Your task to perform on an android device: change the clock display to digital Image 0: 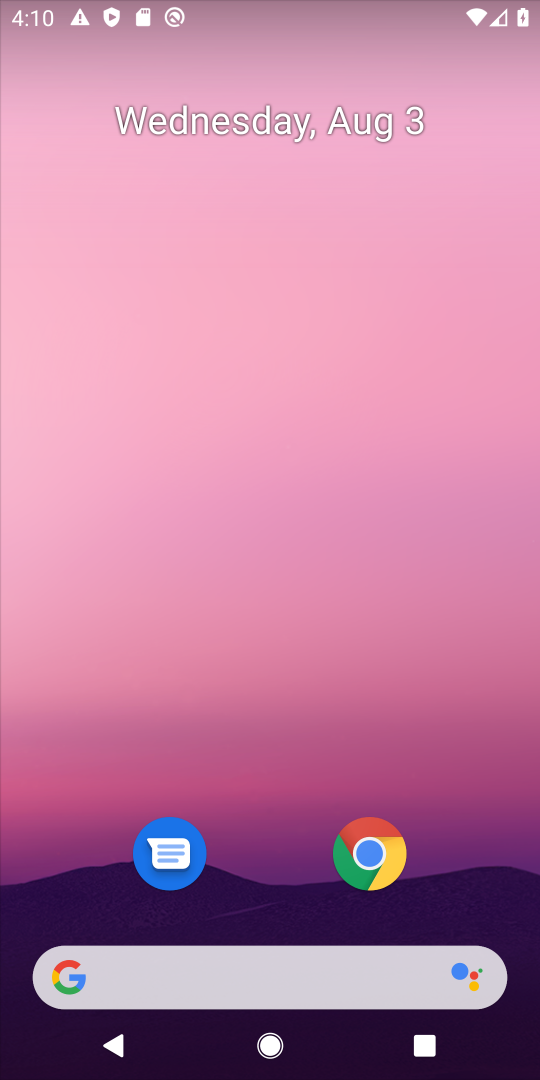
Step 0: drag from (250, 920) to (301, 129)
Your task to perform on an android device: change the clock display to digital Image 1: 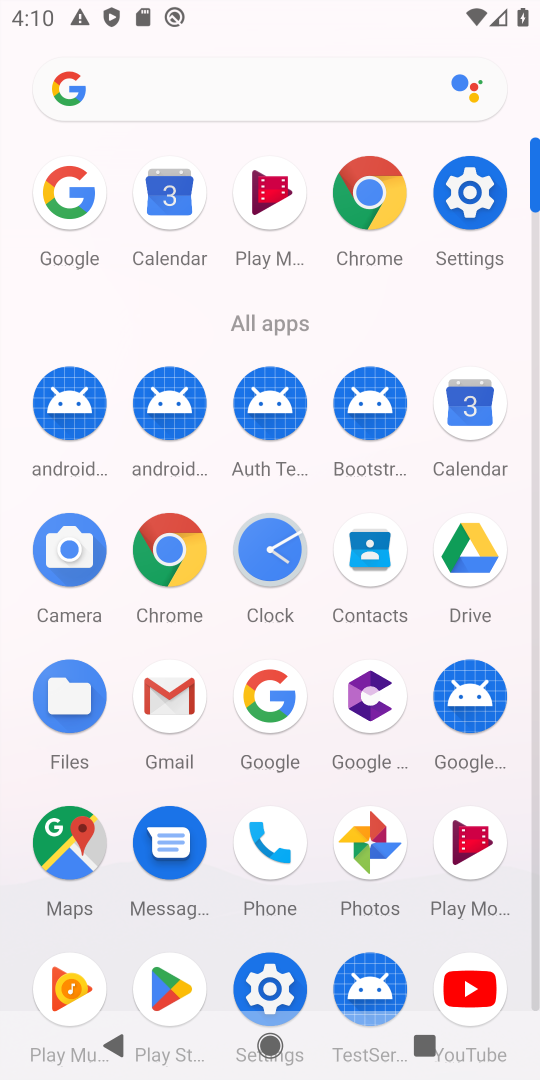
Step 1: click (265, 555)
Your task to perform on an android device: change the clock display to digital Image 2: 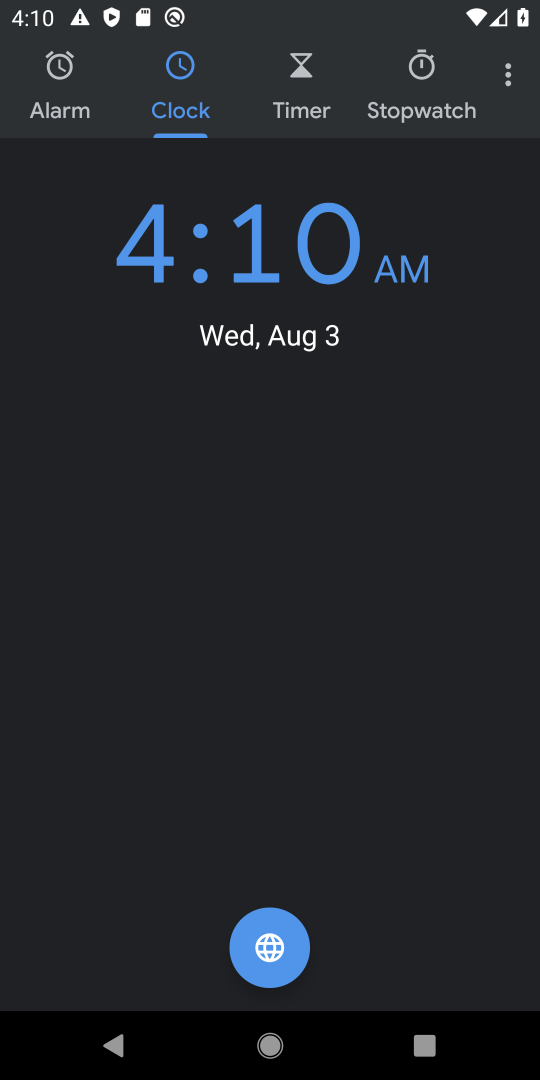
Step 2: click (509, 81)
Your task to perform on an android device: change the clock display to digital Image 3: 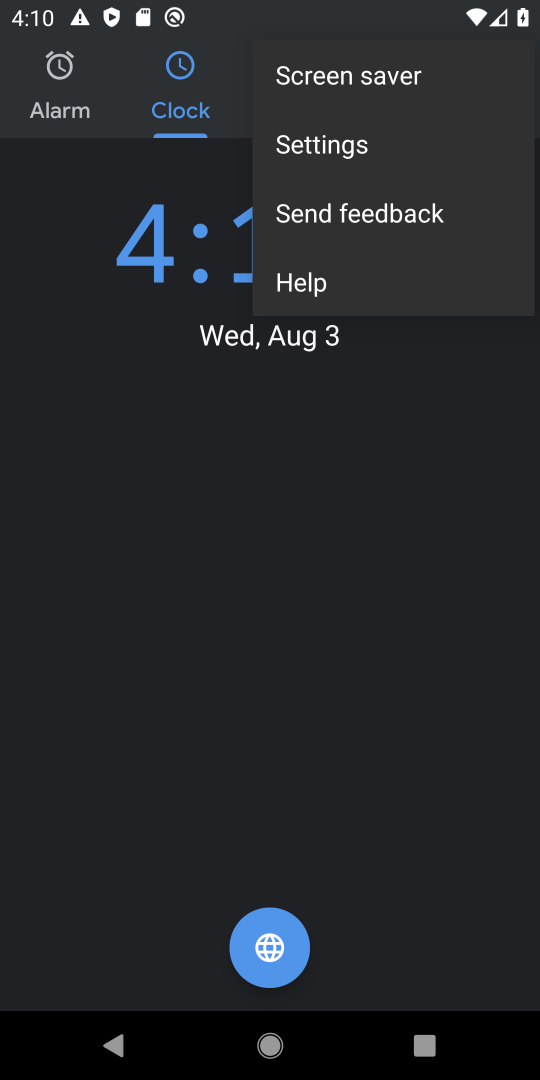
Step 3: click (328, 144)
Your task to perform on an android device: change the clock display to digital Image 4: 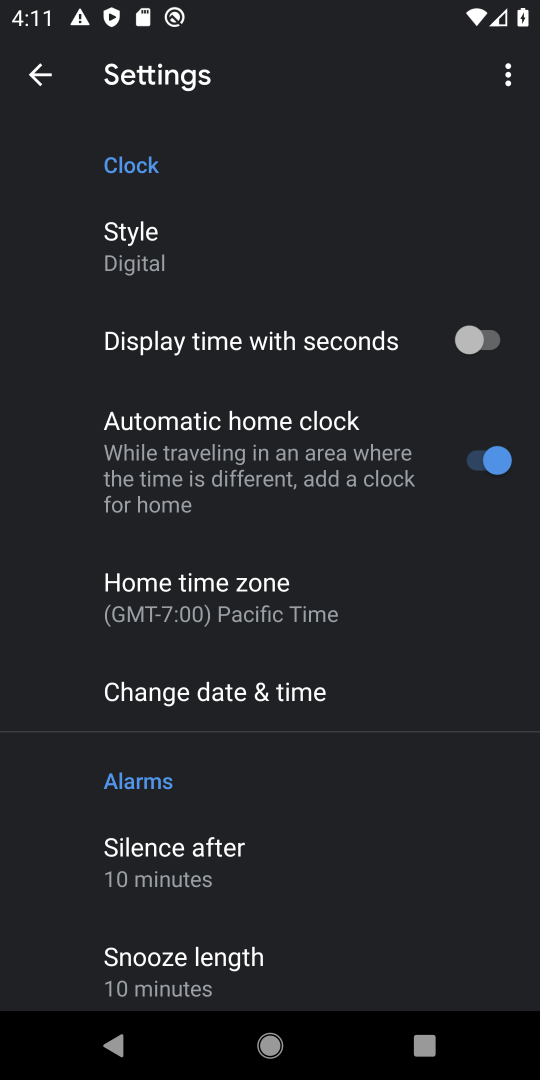
Step 4: task complete